Your task to perform on an android device: turn off smart reply in the gmail app Image 0: 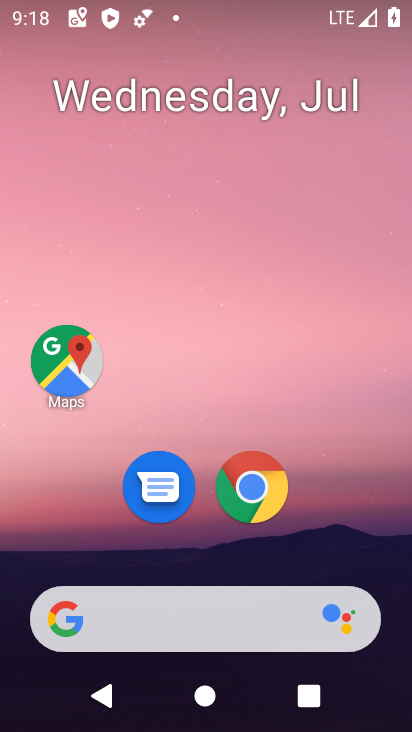
Step 0: drag from (217, 550) to (162, 127)
Your task to perform on an android device: turn off smart reply in the gmail app Image 1: 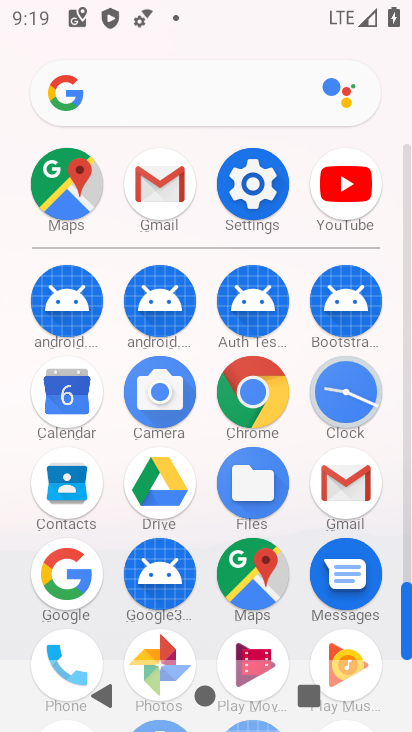
Step 1: click (363, 484)
Your task to perform on an android device: turn off smart reply in the gmail app Image 2: 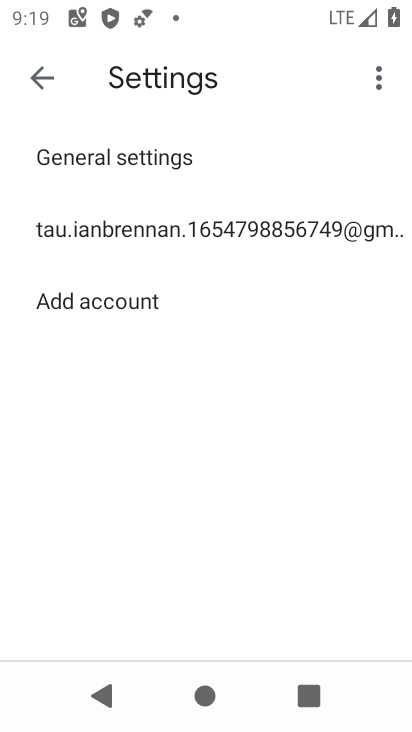
Step 2: click (85, 235)
Your task to perform on an android device: turn off smart reply in the gmail app Image 3: 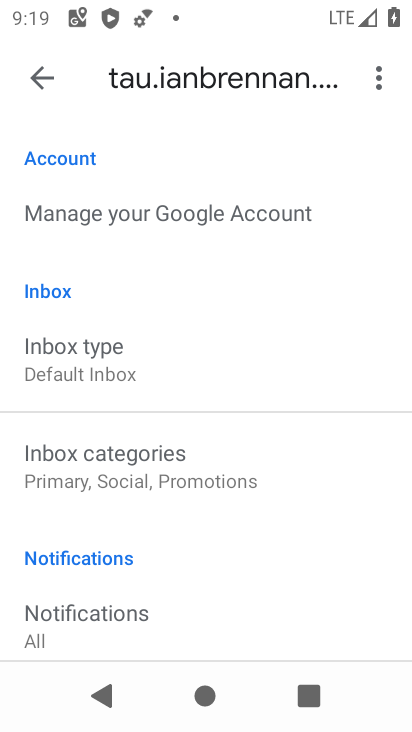
Step 3: drag from (130, 628) to (16, 177)
Your task to perform on an android device: turn off smart reply in the gmail app Image 4: 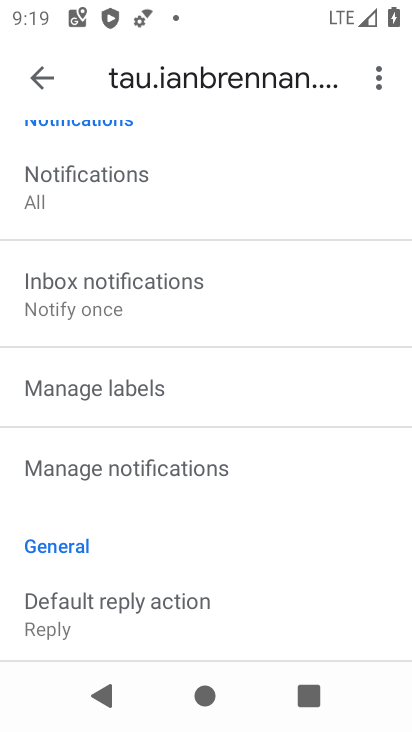
Step 4: drag from (138, 429) to (107, 177)
Your task to perform on an android device: turn off smart reply in the gmail app Image 5: 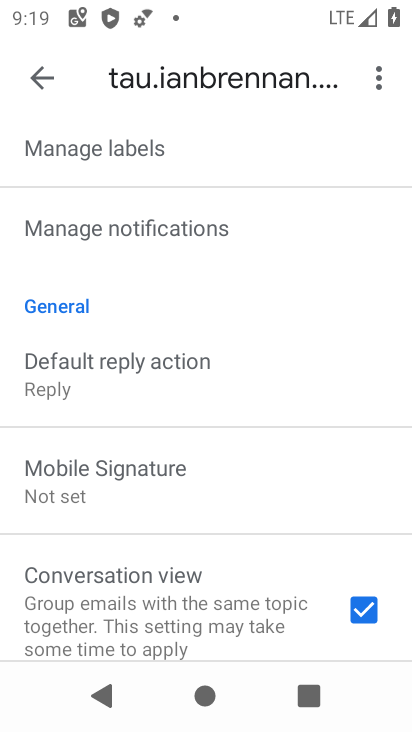
Step 5: drag from (231, 533) to (187, 224)
Your task to perform on an android device: turn off smart reply in the gmail app Image 6: 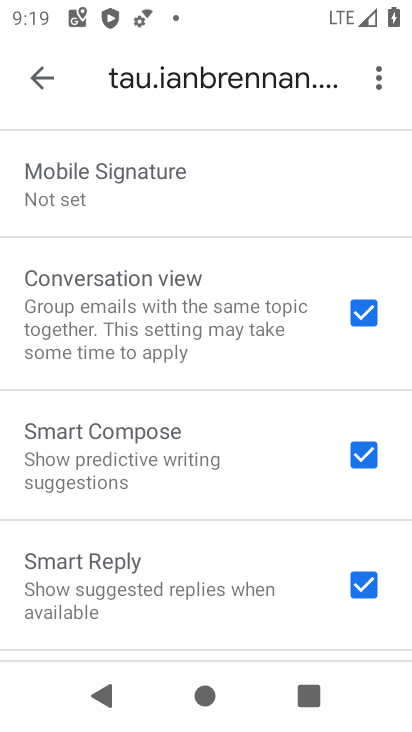
Step 6: click (251, 597)
Your task to perform on an android device: turn off smart reply in the gmail app Image 7: 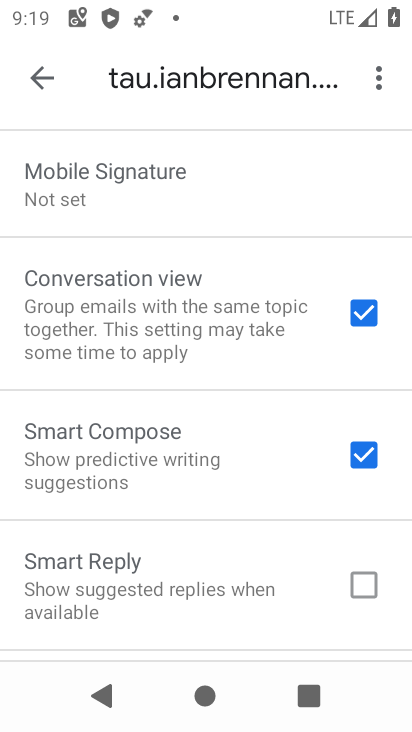
Step 7: task complete